Your task to perform on an android device: delete location history Image 0: 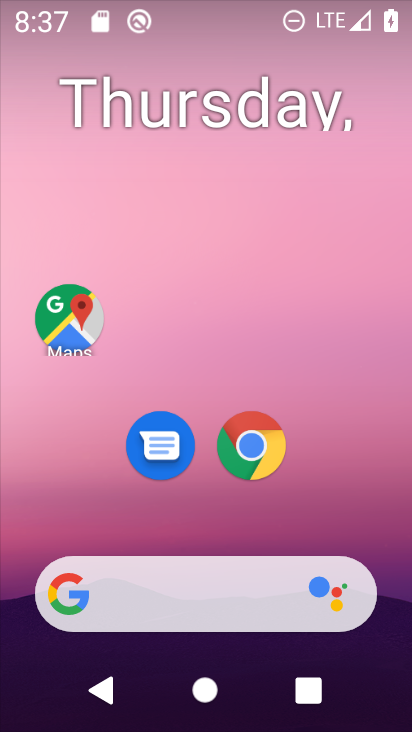
Step 0: drag from (399, 614) to (294, 29)
Your task to perform on an android device: delete location history Image 1: 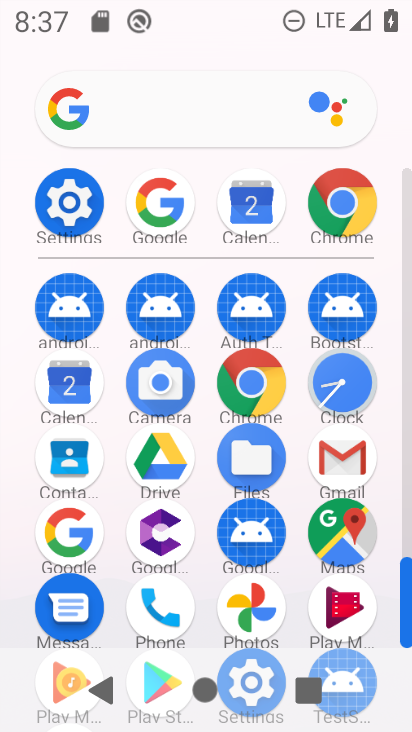
Step 1: click (61, 217)
Your task to perform on an android device: delete location history Image 2: 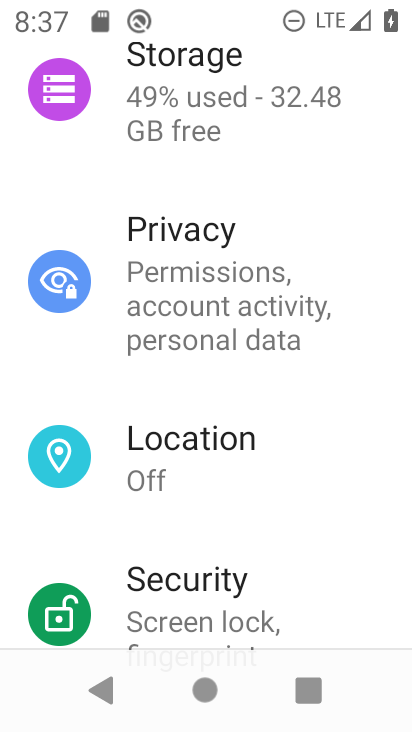
Step 2: click (225, 472)
Your task to perform on an android device: delete location history Image 3: 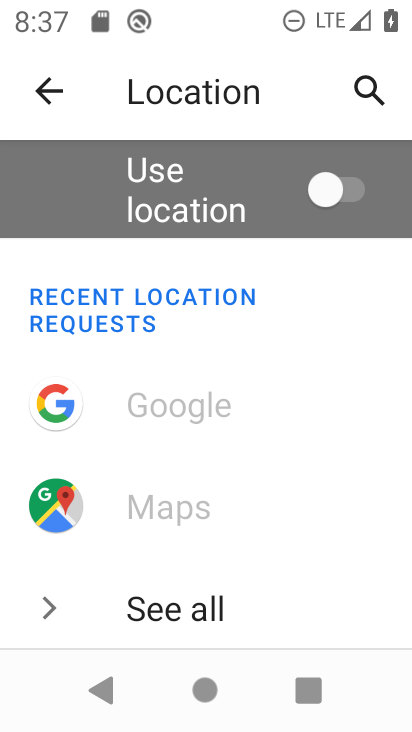
Step 3: drag from (232, 563) to (221, 110)
Your task to perform on an android device: delete location history Image 4: 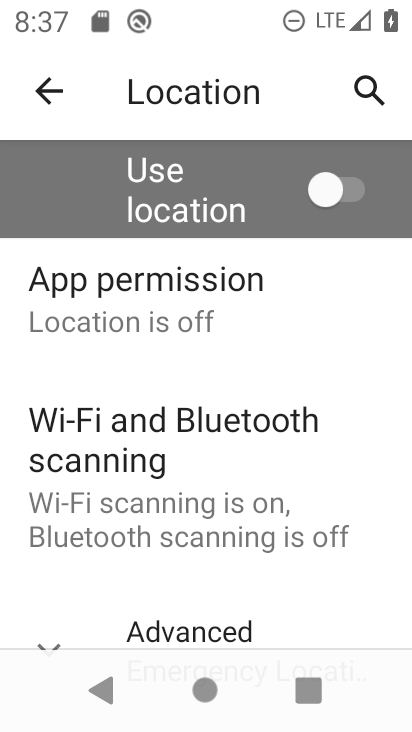
Step 4: click (163, 621)
Your task to perform on an android device: delete location history Image 5: 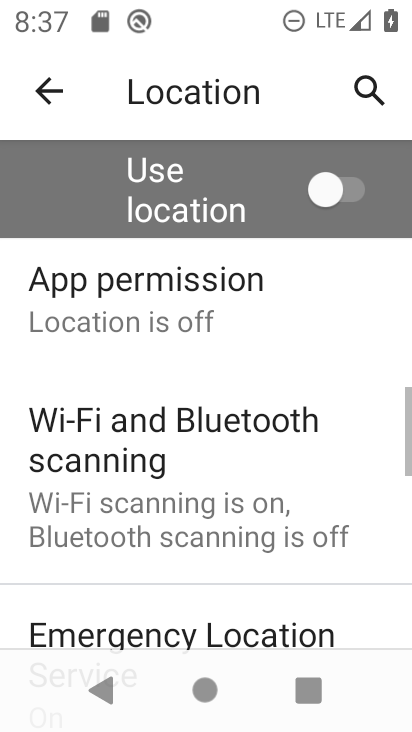
Step 5: drag from (195, 439) to (195, 175)
Your task to perform on an android device: delete location history Image 6: 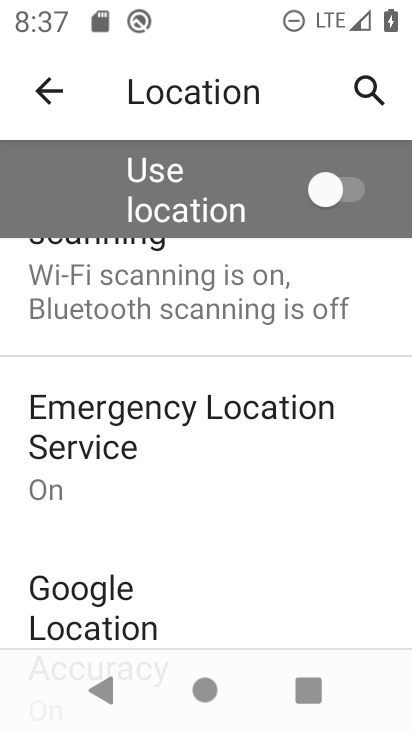
Step 6: click (173, 591)
Your task to perform on an android device: delete location history Image 7: 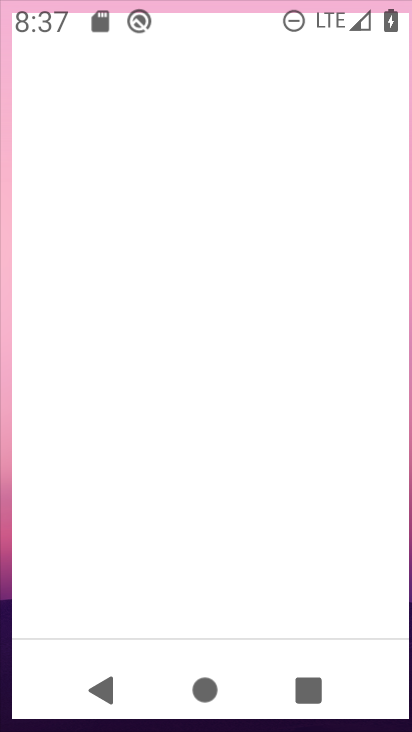
Step 7: click (208, 243)
Your task to perform on an android device: delete location history Image 8: 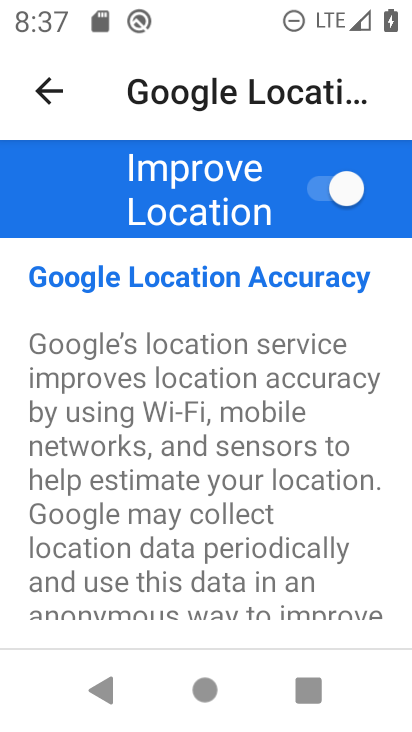
Step 8: press back button
Your task to perform on an android device: delete location history Image 9: 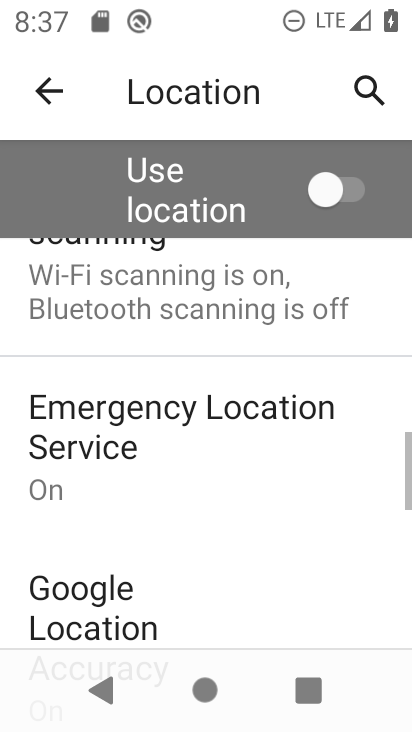
Step 9: drag from (258, 618) to (215, 339)
Your task to perform on an android device: delete location history Image 10: 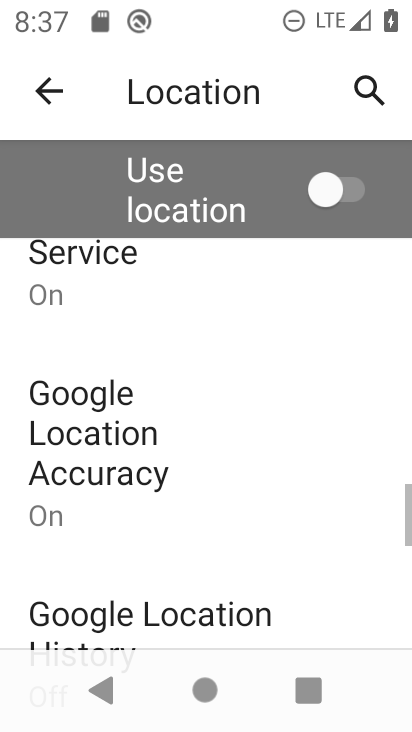
Step 10: click (188, 120)
Your task to perform on an android device: delete location history Image 11: 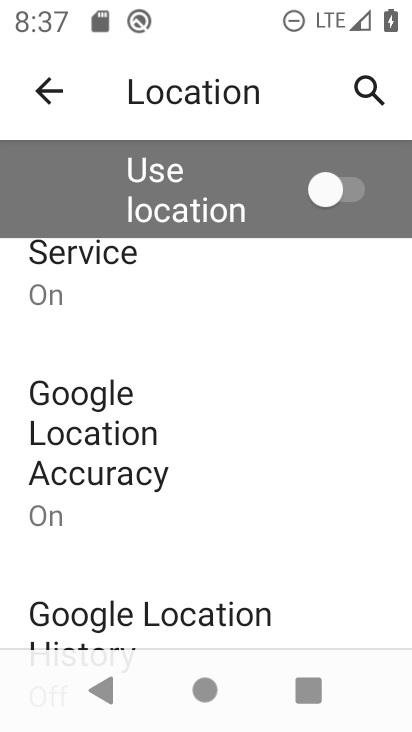
Step 11: drag from (135, 579) to (145, 151)
Your task to perform on an android device: delete location history Image 12: 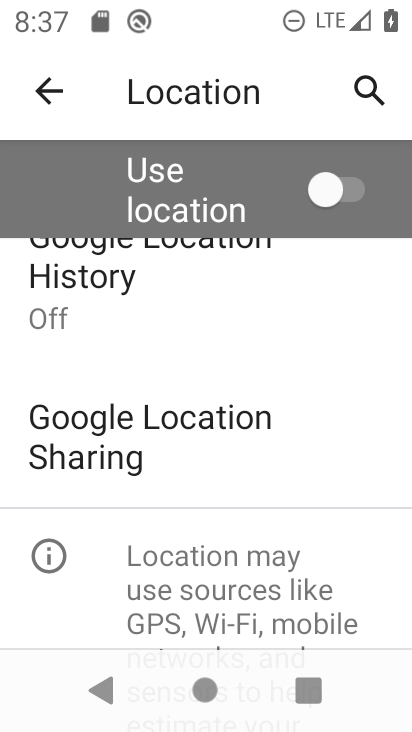
Step 12: click (108, 310)
Your task to perform on an android device: delete location history Image 13: 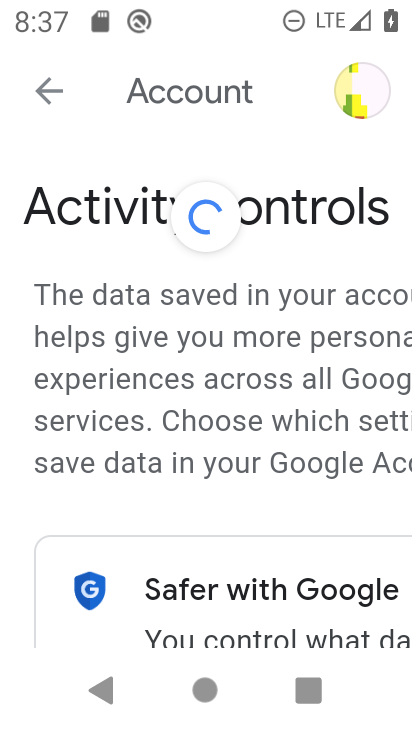
Step 13: drag from (355, 591) to (9, 6)
Your task to perform on an android device: delete location history Image 14: 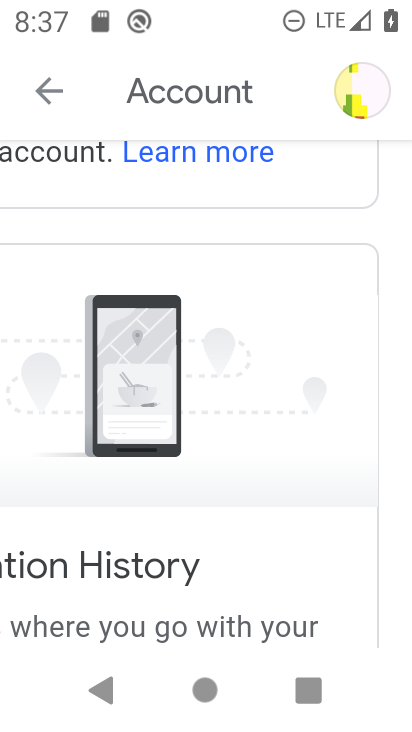
Step 14: drag from (213, 501) to (200, 85)
Your task to perform on an android device: delete location history Image 15: 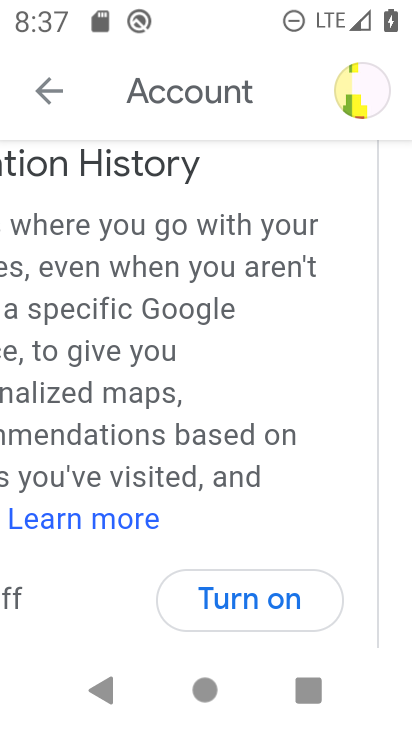
Step 15: drag from (248, 510) to (224, 82)
Your task to perform on an android device: delete location history Image 16: 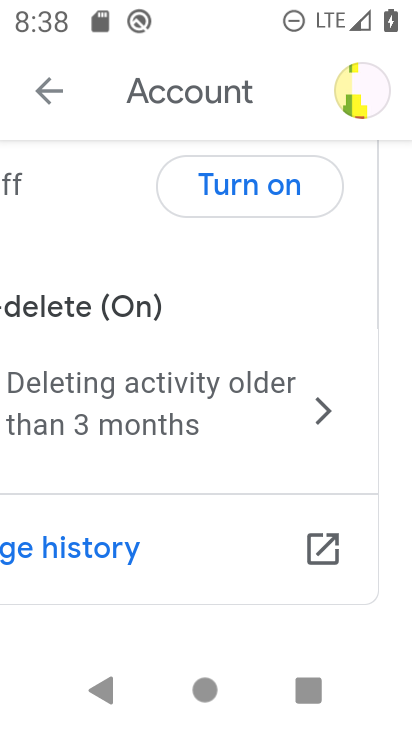
Step 16: click (98, 411)
Your task to perform on an android device: delete location history Image 17: 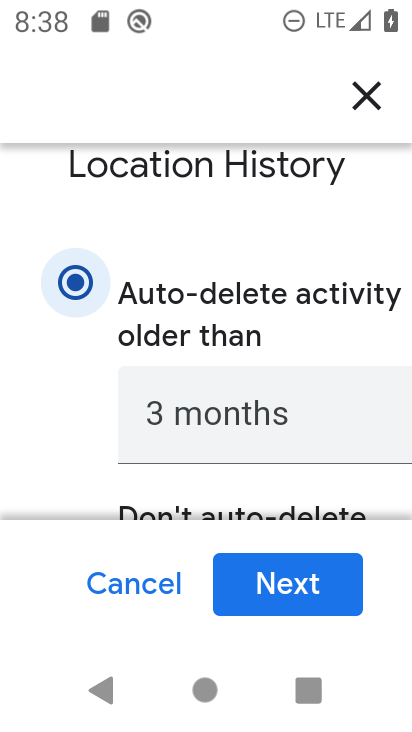
Step 17: click (303, 589)
Your task to perform on an android device: delete location history Image 18: 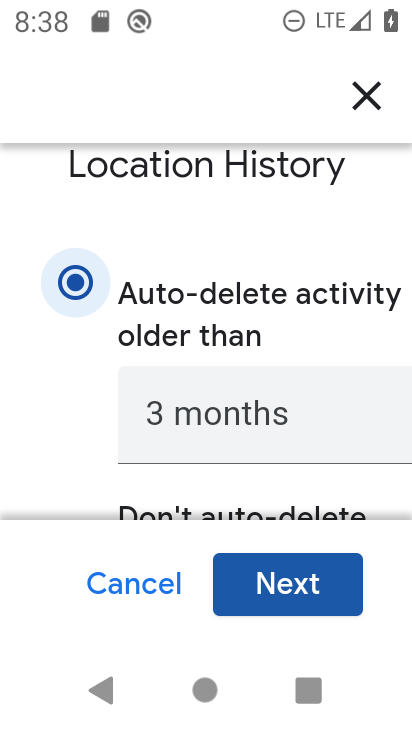
Step 18: click (303, 589)
Your task to perform on an android device: delete location history Image 19: 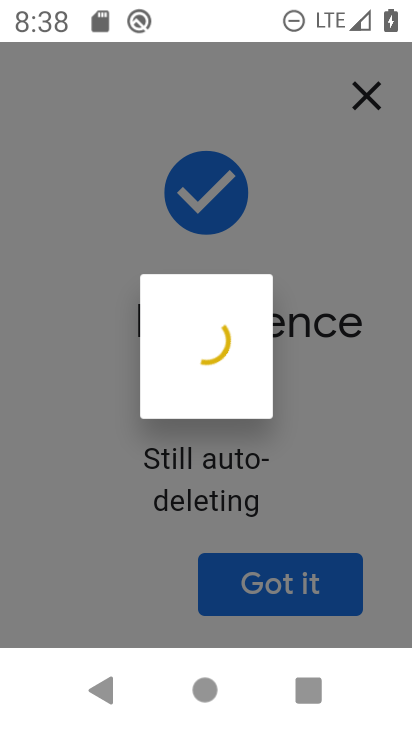
Step 19: click (303, 589)
Your task to perform on an android device: delete location history Image 20: 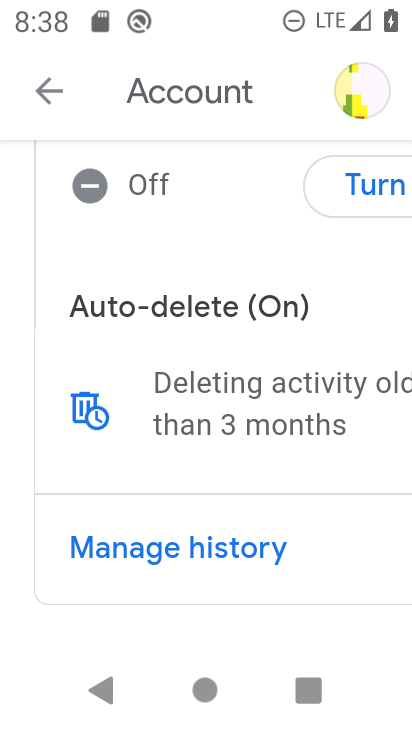
Step 20: task complete